Your task to perform on an android device: install app "YouTube Kids" Image 0: 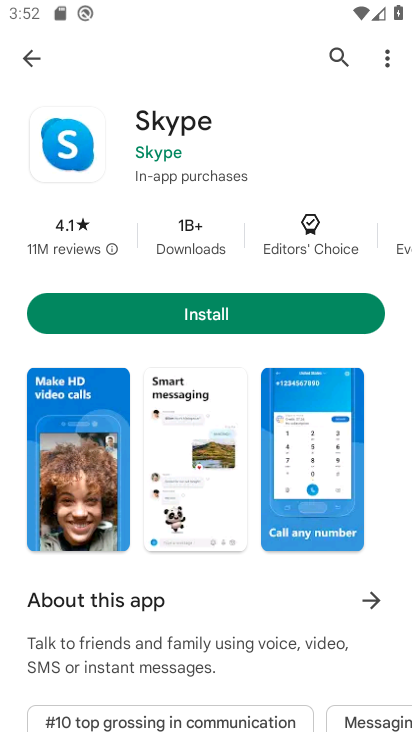
Step 0: press home button
Your task to perform on an android device: install app "YouTube Kids" Image 1: 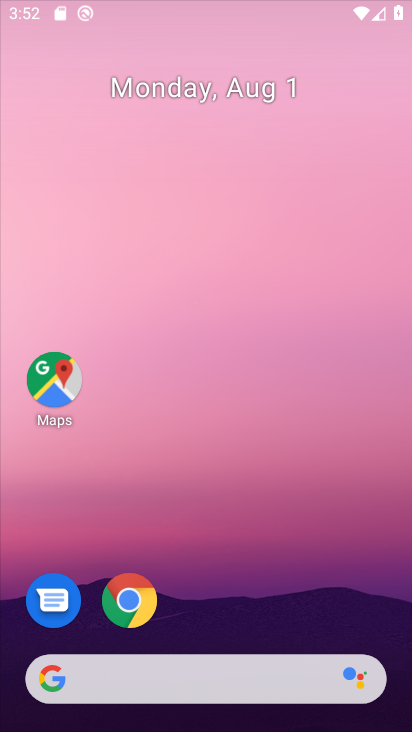
Step 1: drag from (304, 550) to (168, 7)
Your task to perform on an android device: install app "YouTube Kids" Image 2: 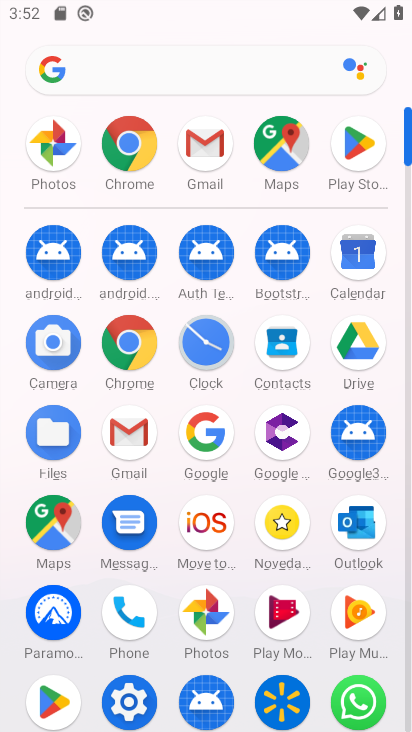
Step 2: click (355, 148)
Your task to perform on an android device: install app "YouTube Kids" Image 3: 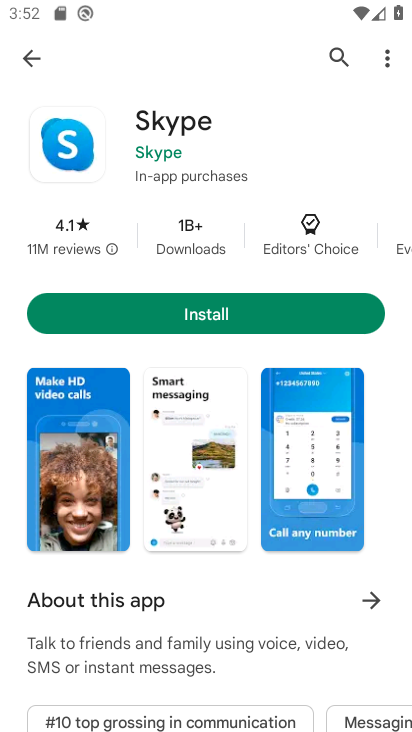
Step 3: click (341, 64)
Your task to perform on an android device: install app "YouTube Kids" Image 4: 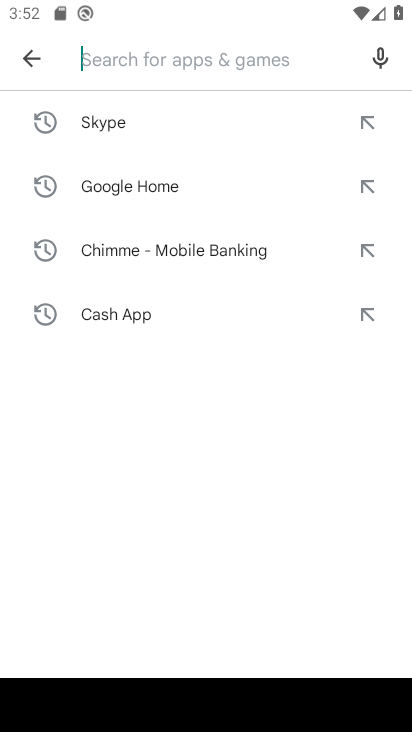
Step 4: type "YouTube Kids"
Your task to perform on an android device: install app "YouTube Kids" Image 5: 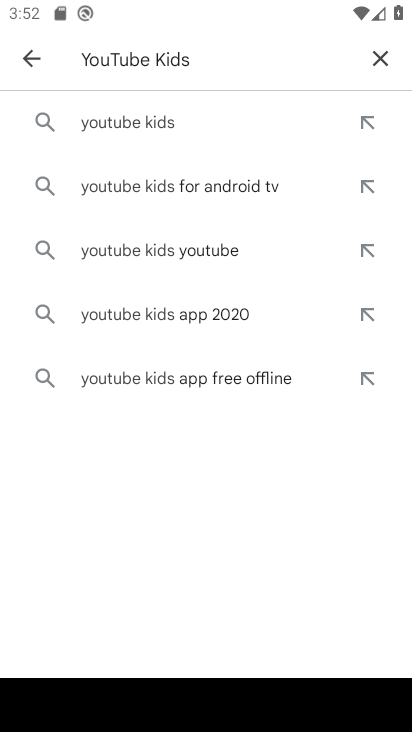
Step 5: press enter
Your task to perform on an android device: install app "YouTube Kids" Image 6: 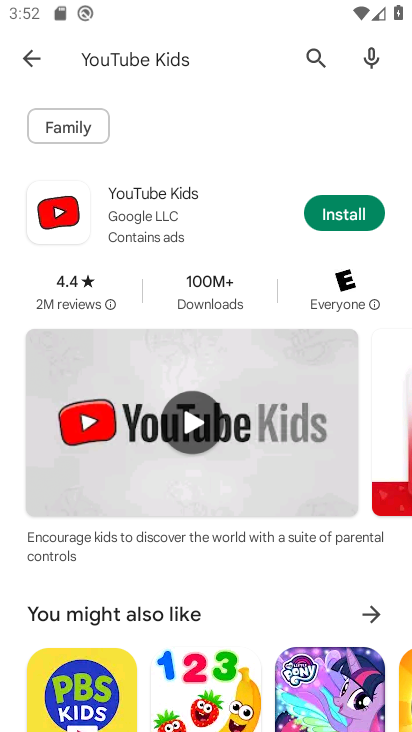
Step 6: click (347, 215)
Your task to perform on an android device: install app "YouTube Kids" Image 7: 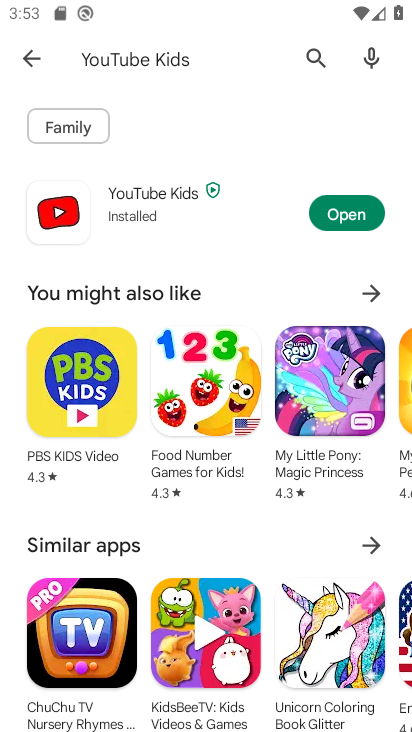
Step 7: task complete